Your task to perform on an android device: Open the map Image 0: 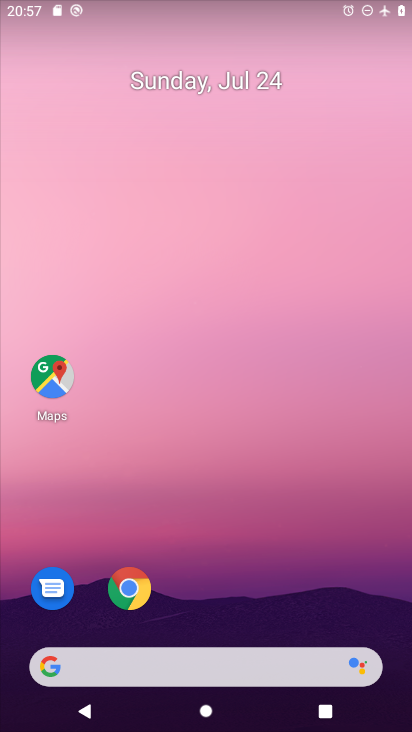
Step 0: press home button
Your task to perform on an android device: Open the map Image 1: 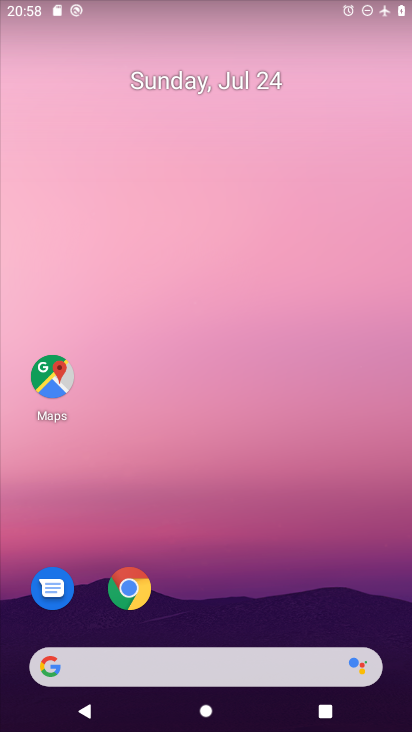
Step 1: click (42, 383)
Your task to perform on an android device: Open the map Image 2: 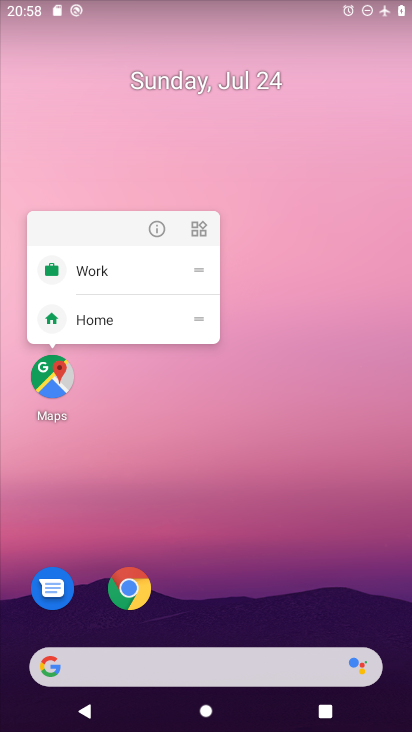
Step 2: click (42, 383)
Your task to perform on an android device: Open the map Image 3: 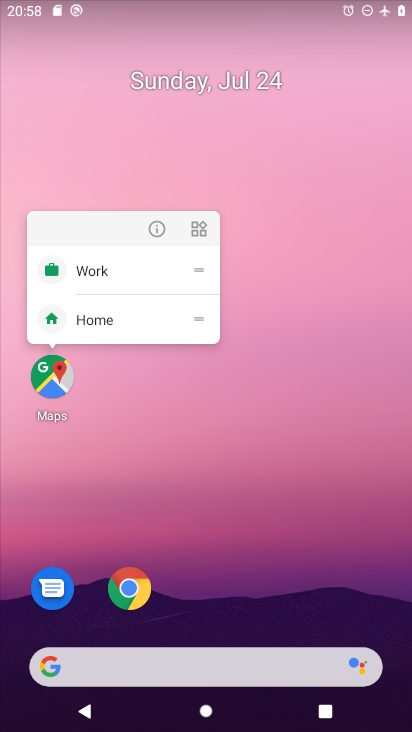
Step 3: click (57, 373)
Your task to perform on an android device: Open the map Image 4: 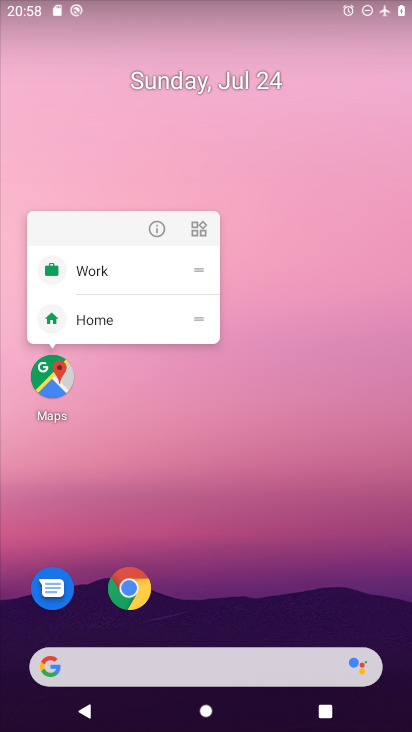
Step 4: click (20, 352)
Your task to perform on an android device: Open the map Image 5: 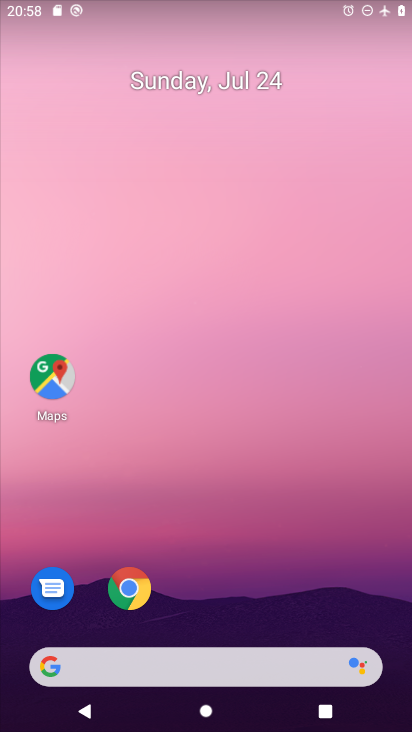
Step 5: click (46, 387)
Your task to perform on an android device: Open the map Image 6: 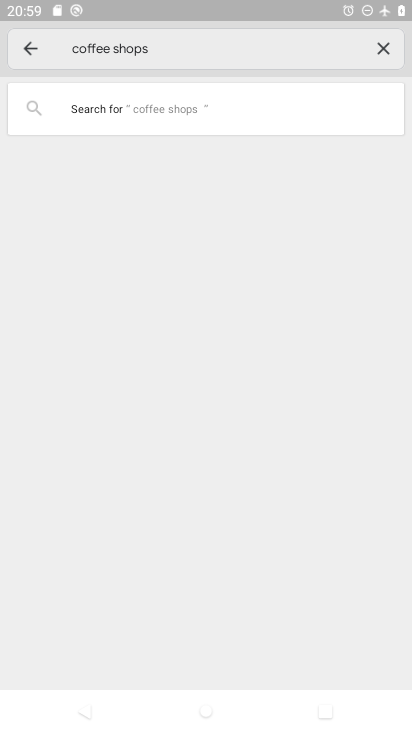
Step 6: task complete